Your task to perform on an android device: When is my next meeting? Image 0: 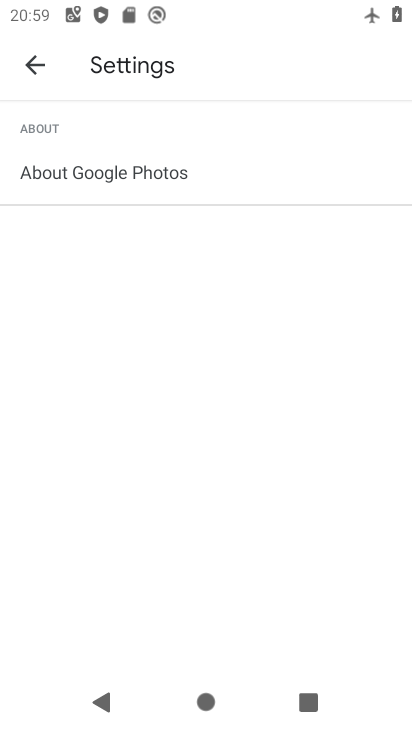
Step 0: press home button
Your task to perform on an android device: When is my next meeting? Image 1: 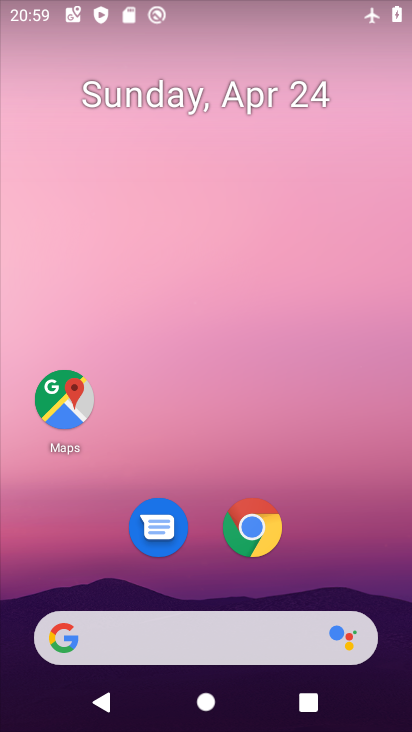
Step 1: drag from (354, 559) to (348, 0)
Your task to perform on an android device: When is my next meeting? Image 2: 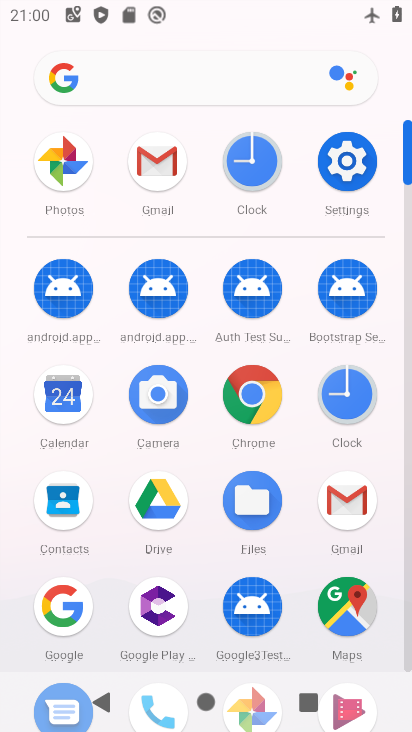
Step 2: click (50, 392)
Your task to perform on an android device: When is my next meeting? Image 3: 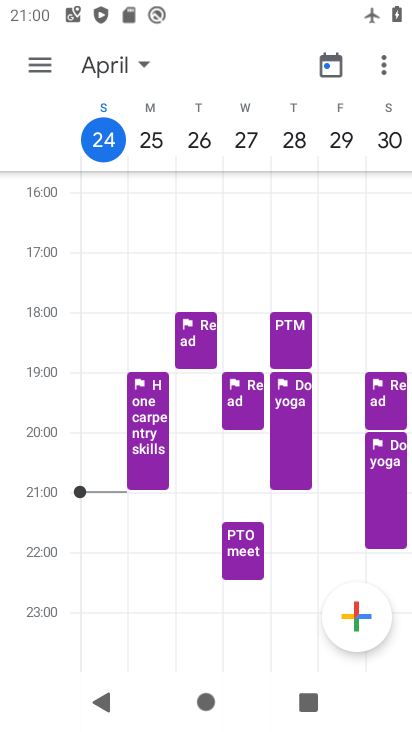
Step 3: click (143, 65)
Your task to perform on an android device: When is my next meeting? Image 4: 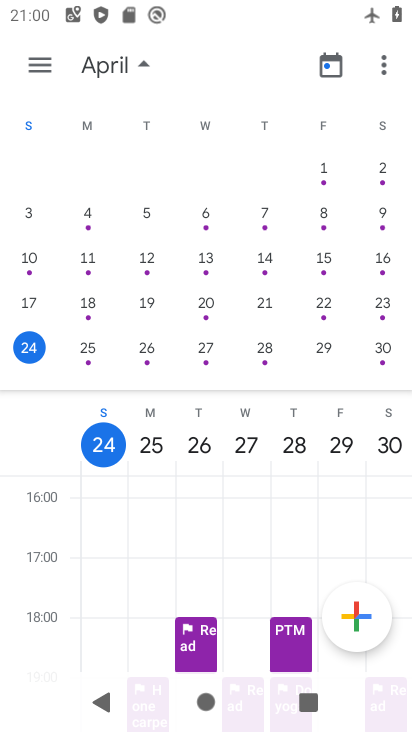
Step 4: click (41, 66)
Your task to perform on an android device: When is my next meeting? Image 5: 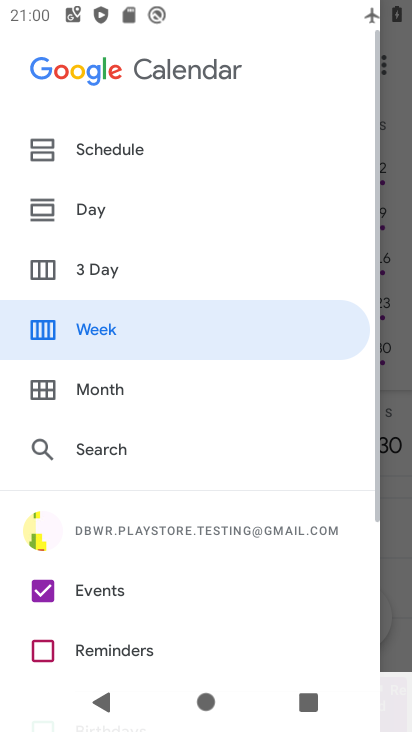
Step 5: click (64, 140)
Your task to perform on an android device: When is my next meeting? Image 6: 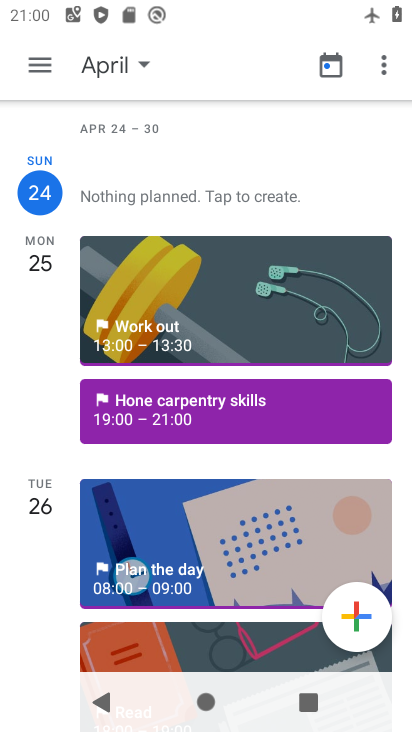
Step 6: click (141, 69)
Your task to perform on an android device: When is my next meeting? Image 7: 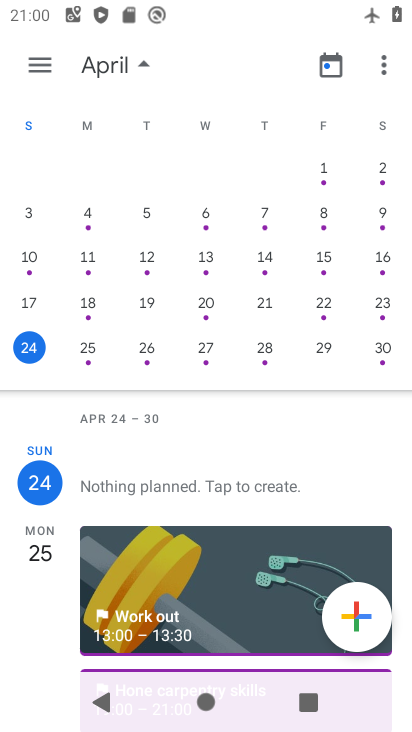
Step 7: click (88, 355)
Your task to perform on an android device: When is my next meeting? Image 8: 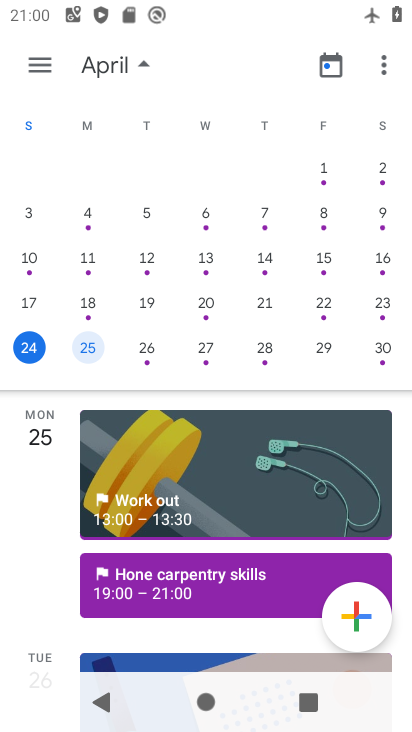
Step 8: click (157, 575)
Your task to perform on an android device: When is my next meeting? Image 9: 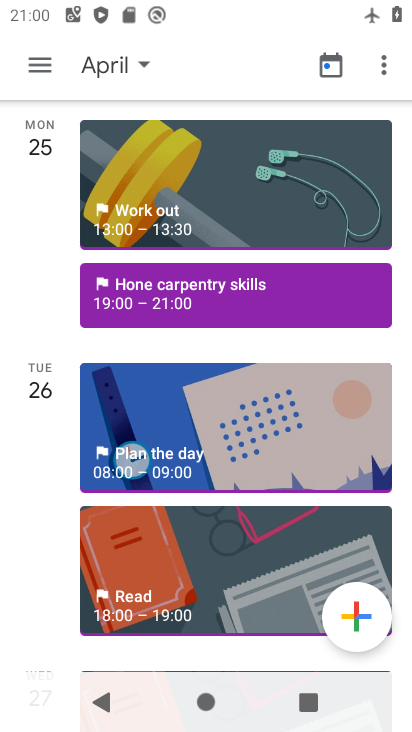
Step 9: click (186, 307)
Your task to perform on an android device: When is my next meeting? Image 10: 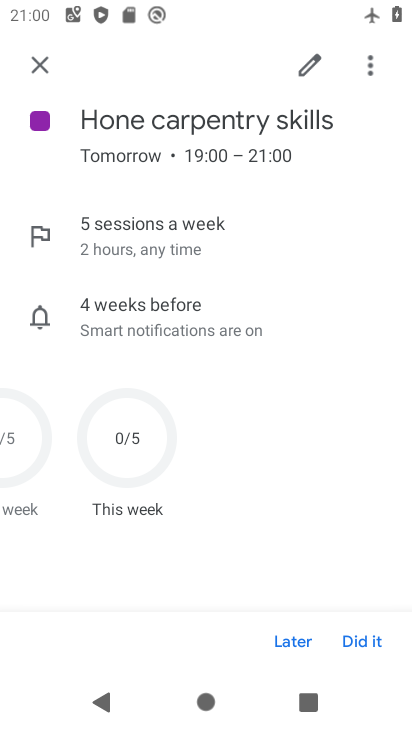
Step 10: task complete